Your task to perform on an android device: turn off improve location accuracy Image 0: 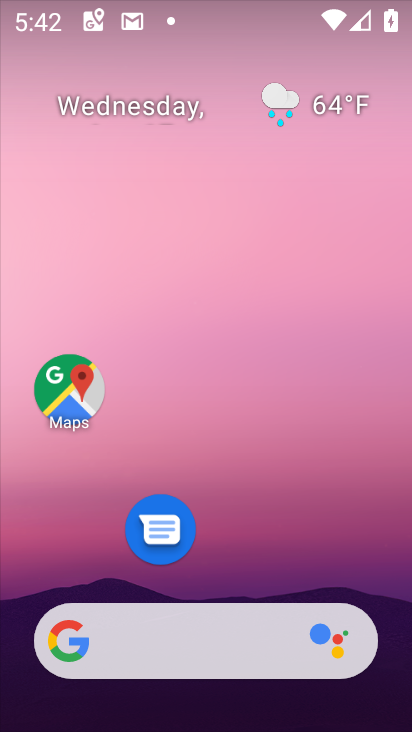
Step 0: drag from (207, 550) to (161, 59)
Your task to perform on an android device: turn off improve location accuracy Image 1: 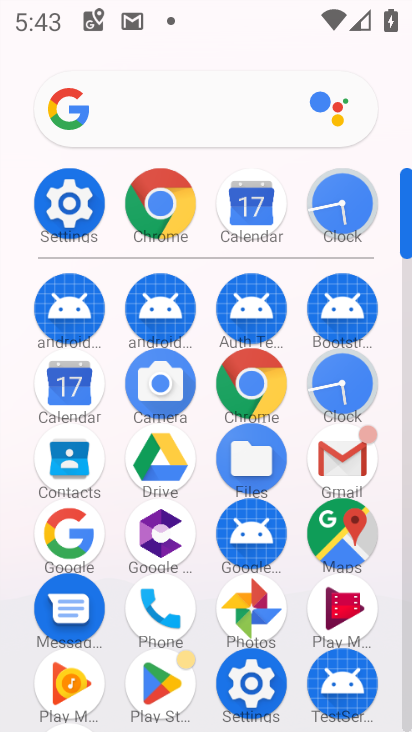
Step 1: click (69, 203)
Your task to perform on an android device: turn off improve location accuracy Image 2: 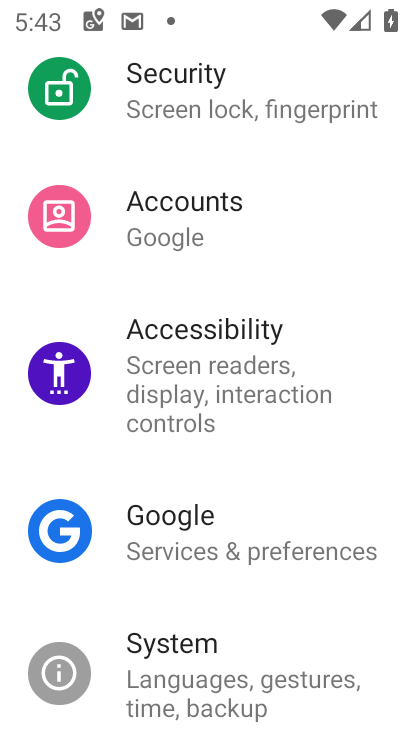
Step 2: drag from (252, 338) to (173, 700)
Your task to perform on an android device: turn off improve location accuracy Image 3: 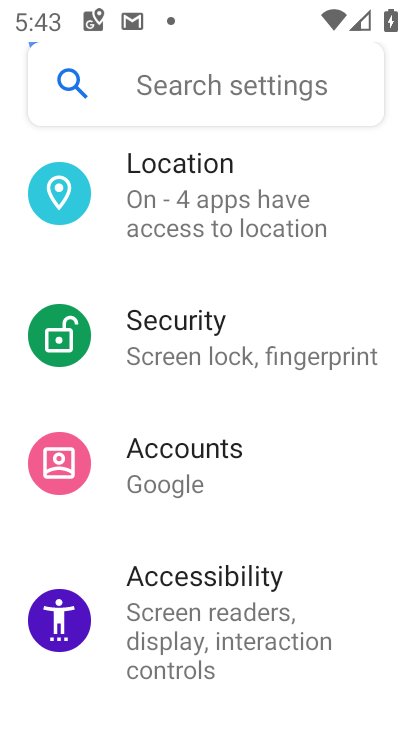
Step 3: drag from (251, 304) to (241, 553)
Your task to perform on an android device: turn off improve location accuracy Image 4: 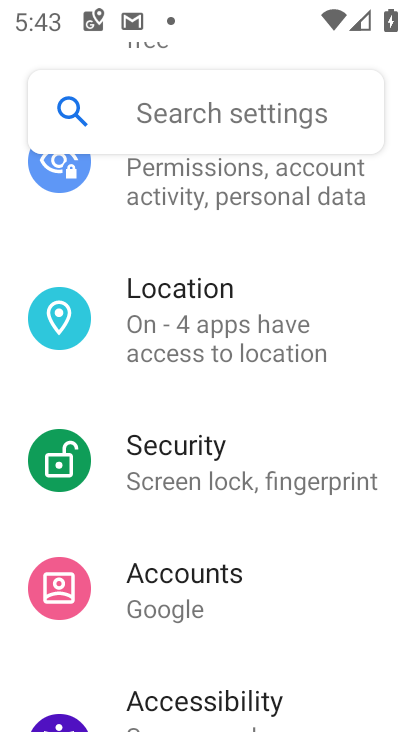
Step 4: drag from (245, 257) to (248, 602)
Your task to perform on an android device: turn off improve location accuracy Image 5: 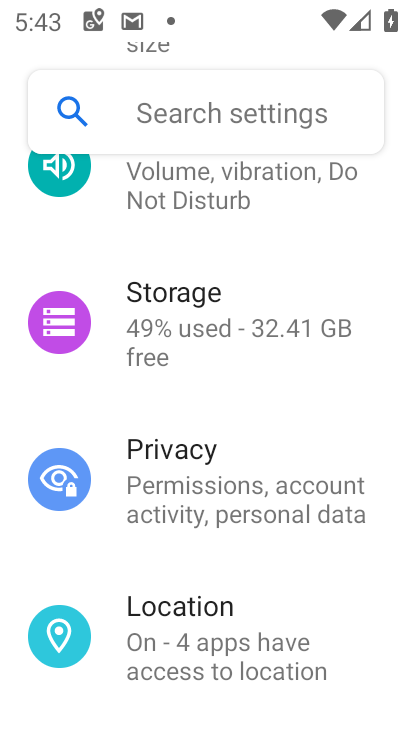
Step 5: click (198, 689)
Your task to perform on an android device: turn off improve location accuracy Image 6: 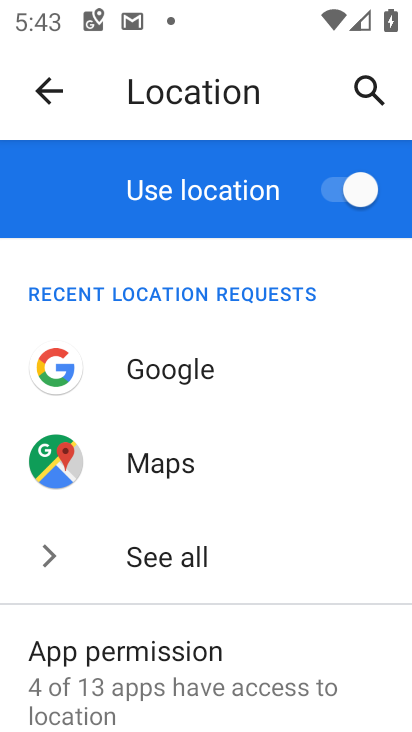
Step 6: drag from (193, 638) to (211, 430)
Your task to perform on an android device: turn off improve location accuracy Image 7: 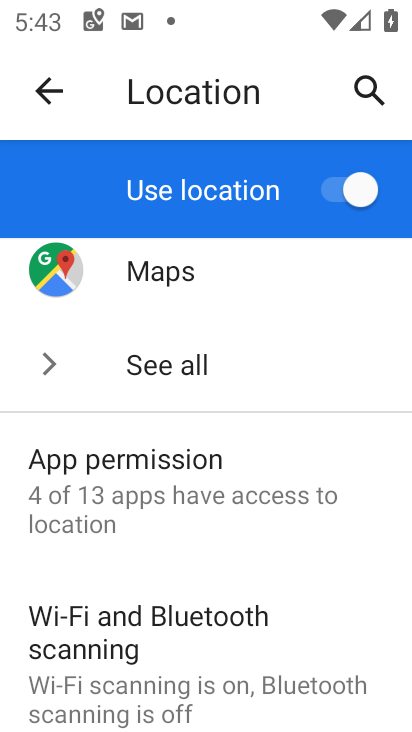
Step 7: drag from (180, 611) to (193, 274)
Your task to perform on an android device: turn off improve location accuracy Image 8: 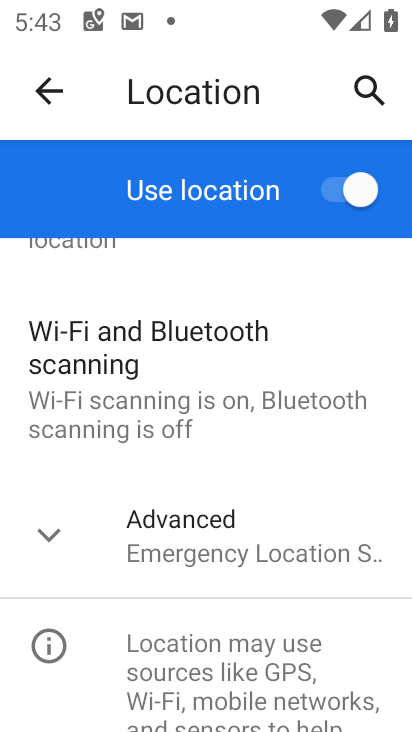
Step 8: drag from (253, 689) to (298, 274)
Your task to perform on an android device: turn off improve location accuracy Image 9: 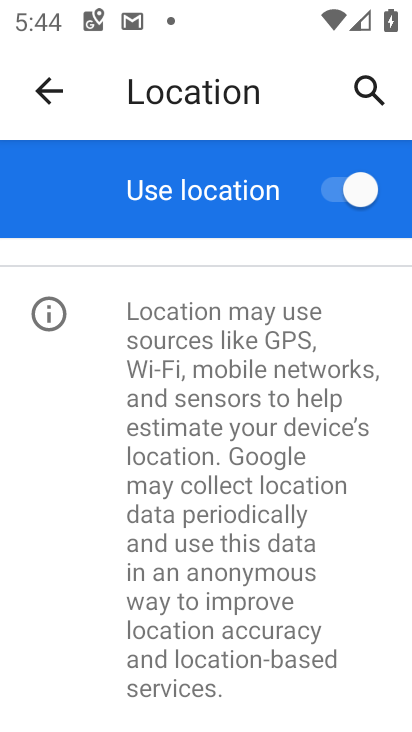
Step 9: drag from (79, 597) to (124, 218)
Your task to perform on an android device: turn off improve location accuracy Image 10: 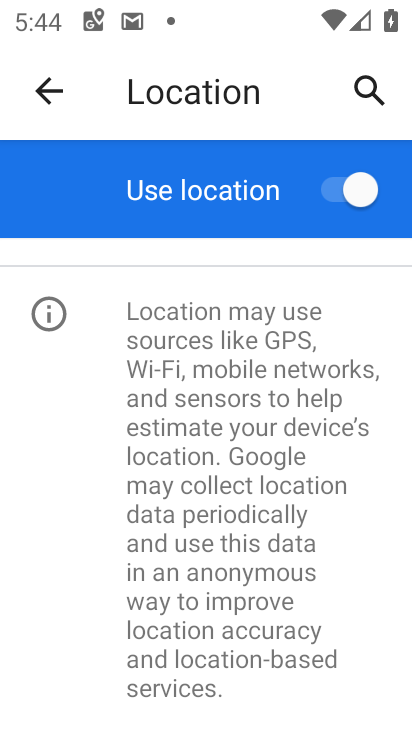
Step 10: drag from (266, 683) to (290, 410)
Your task to perform on an android device: turn off improve location accuracy Image 11: 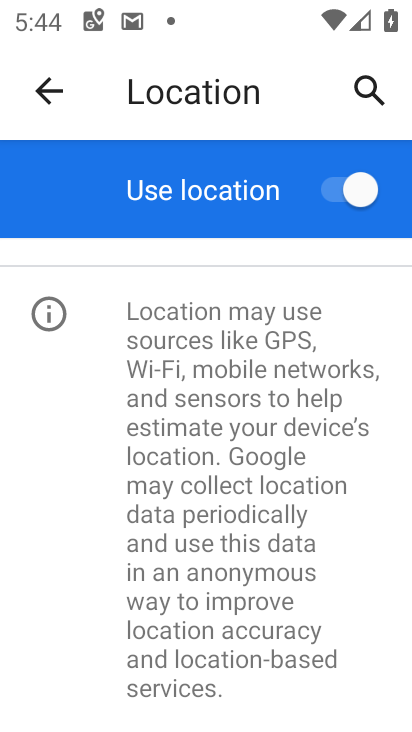
Step 11: drag from (69, 622) to (98, 280)
Your task to perform on an android device: turn off improve location accuracy Image 12: 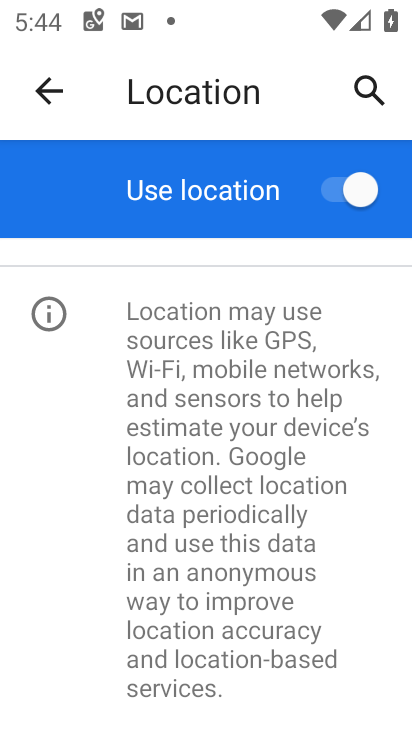
Step 12: drag from (98, 264) to (98, 530)
Your task to perform on an android device: turn off improve location accuracy Image 13: 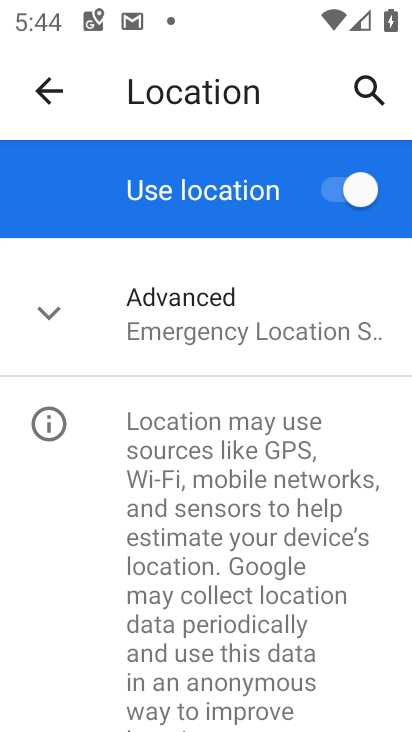
Step 13: drag from (119, 375) to (110, 729)
Your task to perform on an android device: turn off improve location accuracy Image 14: 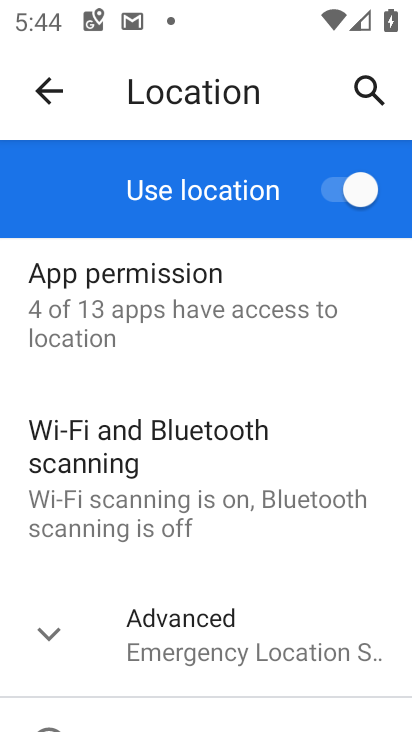
Step 14: click (144, 631)
Your task to perform on an android device: turn off improve location accuracy Image 15: 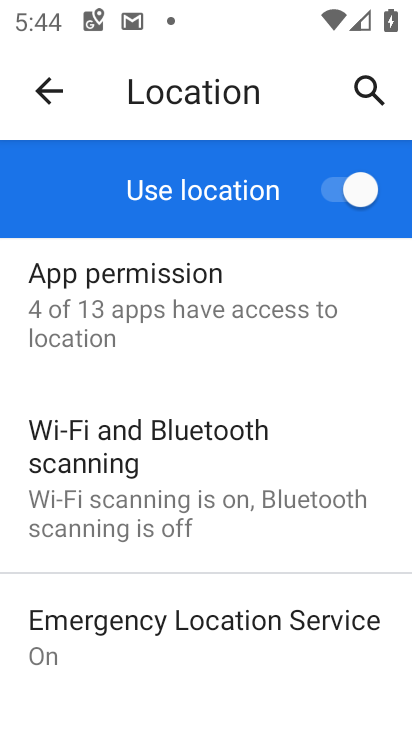
Step 15: drag from (203, 521) to (210, 345)
Your task to perform on an android device: turn off improve location accuracy Image 16: 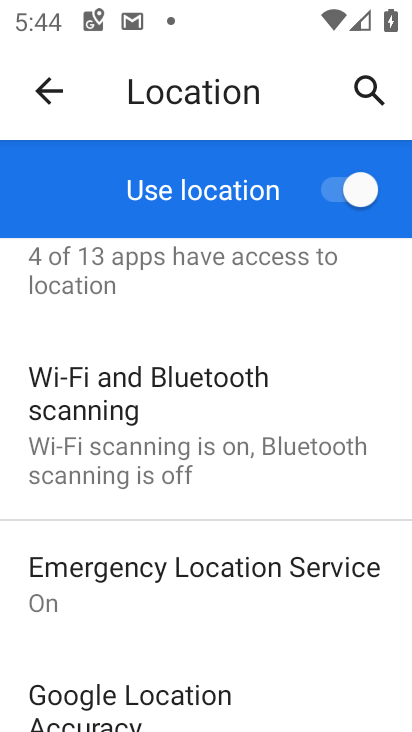
Step 16: click (135, 701)
Your task to perform on an android device: turn off improve location accuracy Image 17: 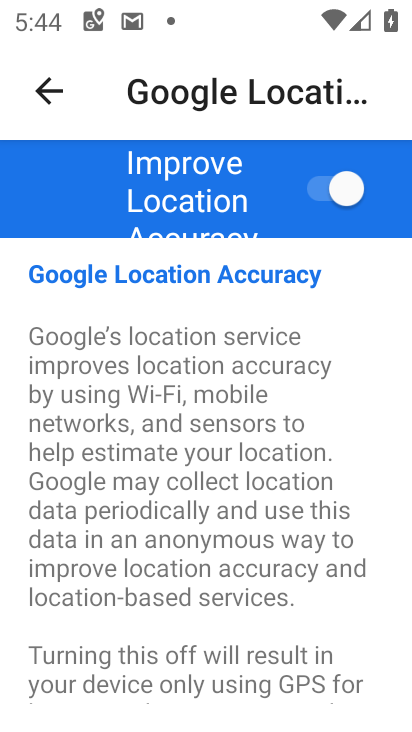
Step 17: click (311, 182)
Your task to perform on an android device: turn off improve location accuracy Image 18: 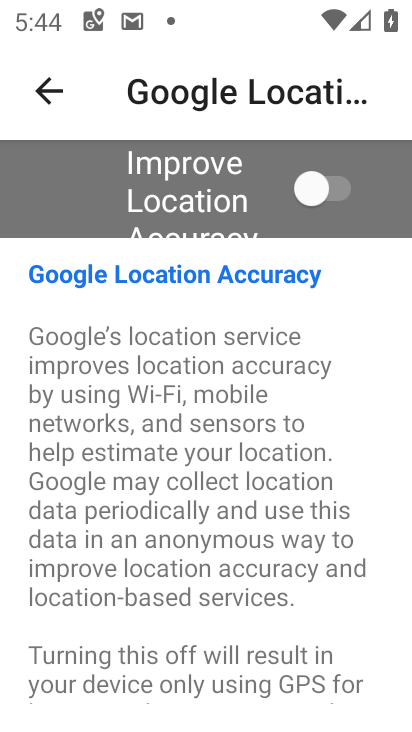
Step 18: task complete